Your task to perform on an android device: empty trash in the gmail app Image 0: 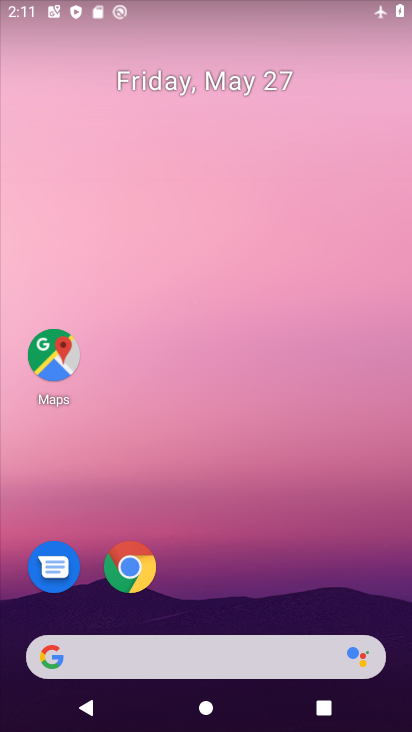
Step 0: drag from (219, 589) to (251, 119)
Your task to perform on an android device: empty trash in the gmail app Image 1: 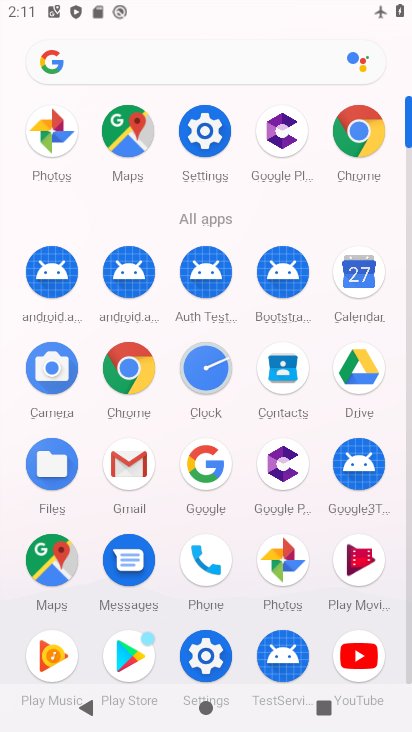
Step 1: click (127, 461)
Your task to perform on an android device: empty trash in the gmail app Image 2: 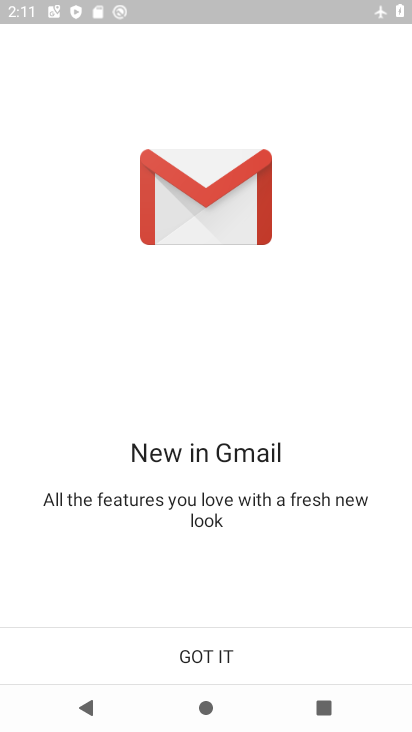
Step 2: click (211, 651)
Your task to perform on an android device: empty trash in the gmail app Image 3: 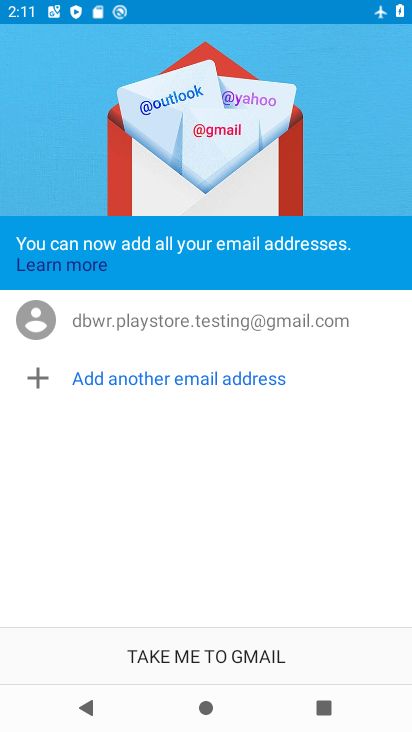
Step 3: click (211, 651)
Your task to perform on an android device: empty trash in the gmail app Image 4: 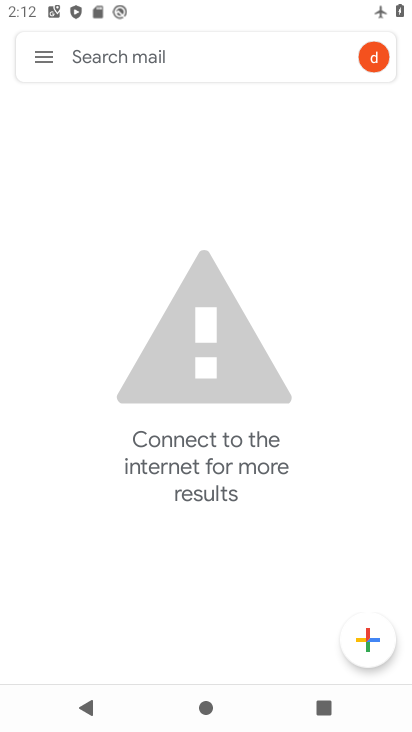
Step 4: click (43, 57)
Your task to perform on an android device: empty trash in the gmail app Image 5: 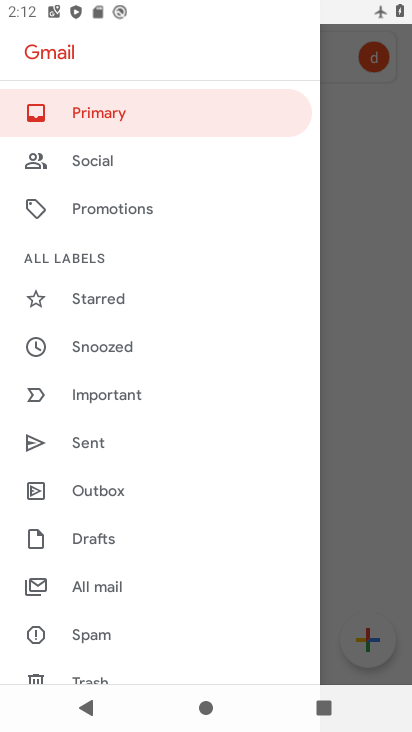
Step 5: drag from (147, 529) to (170, 219)
Your task to perform on an android device: empty trash in the gmail app Image 6: 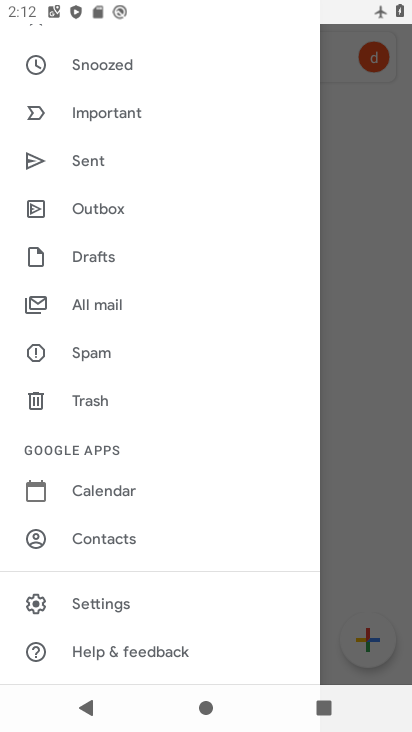
Step 6: drag from (119, 527) to (137, 282)
Your task to perform on an android device: empty trash in the gmail app Image 7: 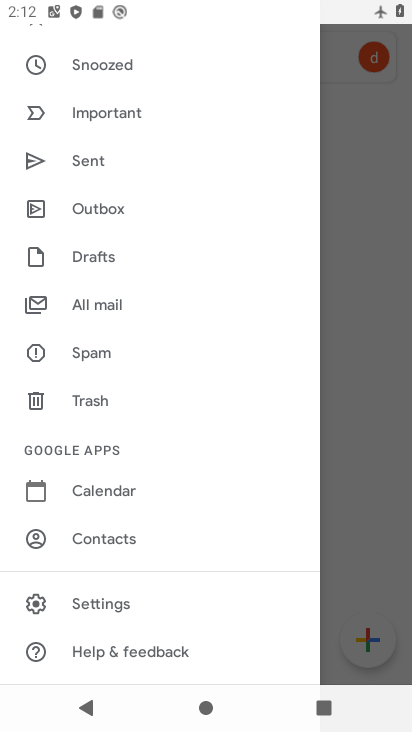
Step 7: click (89, 399)
Your task to perform on an android device: empty trash in the gmail app Image 8: 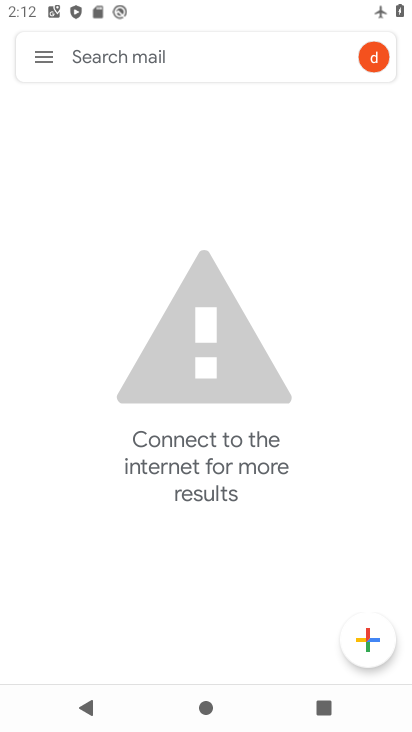
Step 8: task complete